Your task to perform on an android device: make emails show in primary in the gmail app Image 0: 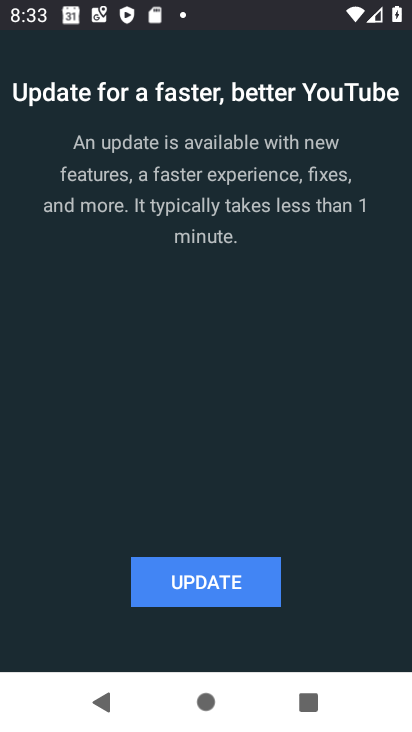
Step 0: press home button
Your task to perform on an android device: make emails show in primary in the gmail app Image 1: 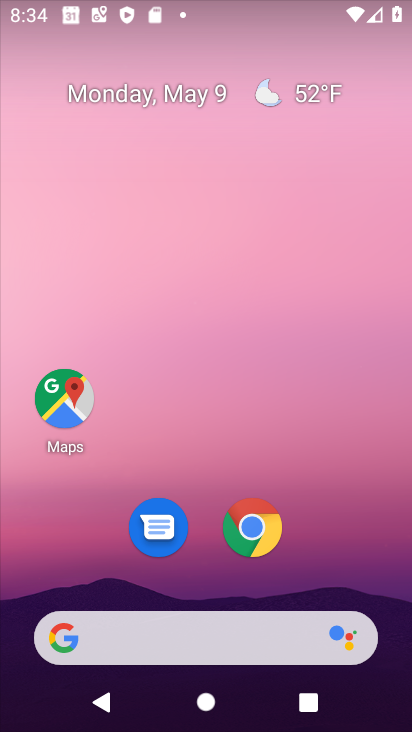
Step 1: drag from (208, 561) to (211, 93)
Your task to perform on an android device: make emails show in primary in the gmail app Image 2: 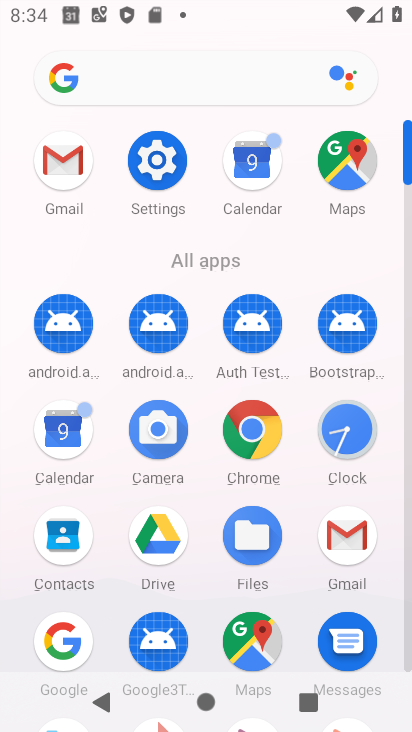
Step 2: click (64, 163)
Your task to perform on an android device: make emails show in primary in the gmail app Image 3: 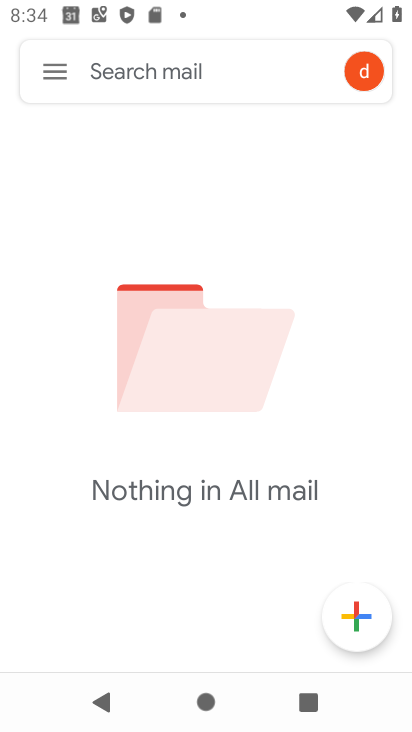
Step 3: click (62, 72)
Your task to perform on an android device: make emails show in primary in the gmail app Image 4: 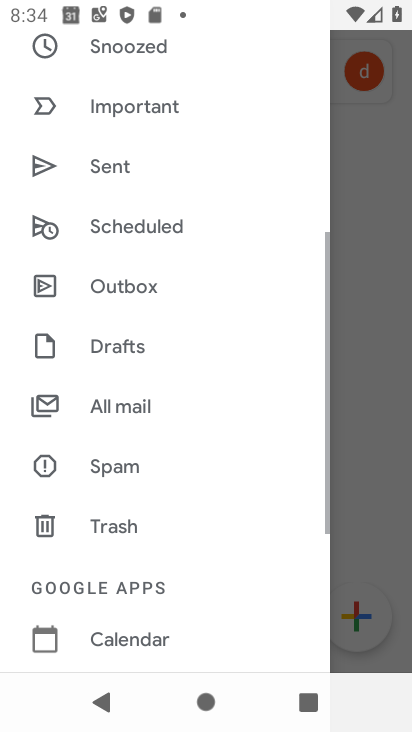
Step 4: drag from (174, 548) to (265, 126)
Your task to perform on an android device: make emails show in primary in the gmail app Image 5: 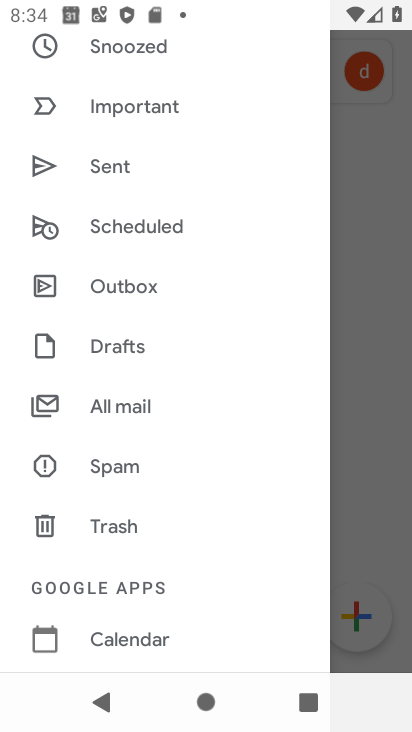
Step 5: drag from (168, 554) to (174, 205)
Your task to perform on an android device: make emails show in primary in the gmail app Image 6: 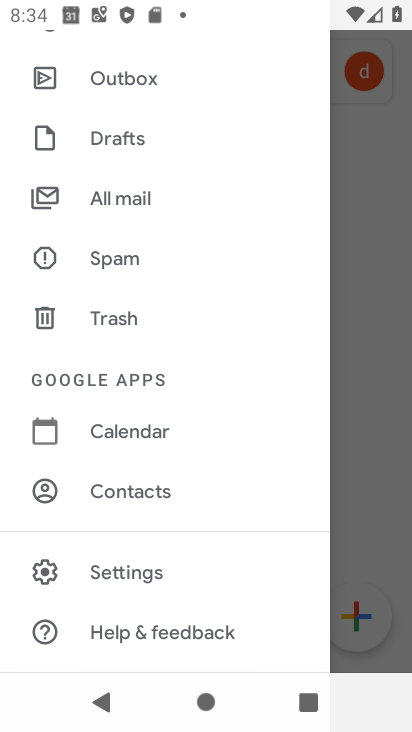
Step 6: click (120, 576)
Your task to perform on an android device: make emails show in primary in the gmail app Image 7: 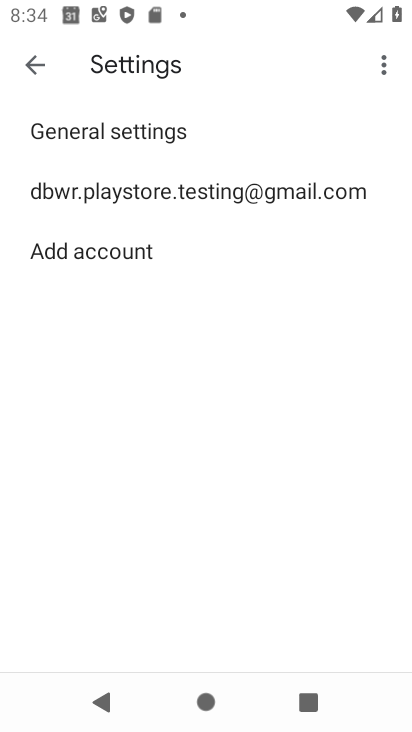
Step 7: click (115, 193)
Your task to perform on an android device: make emails show in primary in the gmail app Image 8: 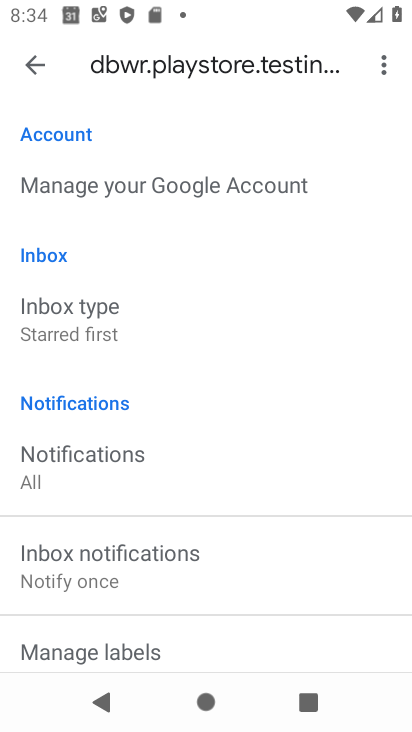
Step 8: click (91, 326)
Your task to perform on an android device: make emails show in primary in the gmail app Image 9: 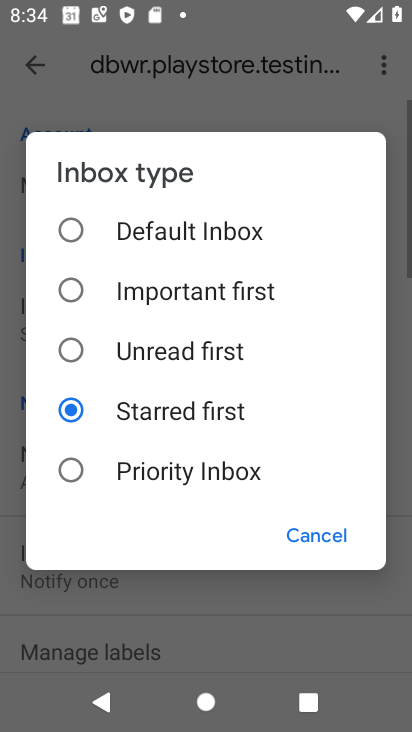
Step 9: click (67, 230)
Your task to perform on an android device: make emails show in primary in the gmail app Image 10: 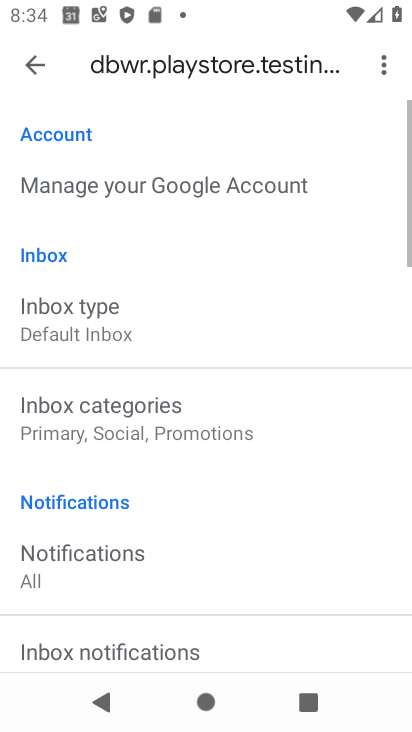
Step 10: click (143, 431)
Your task to perform on an android device: make emails show in primary in the gmail app Image 11: 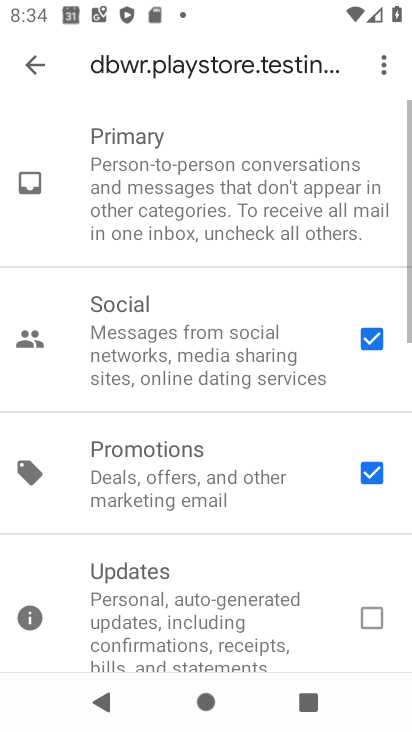
Step 11: click (374, 342)
Your task to perform on an android device: make emails show in primary in the gmail app Image 12: 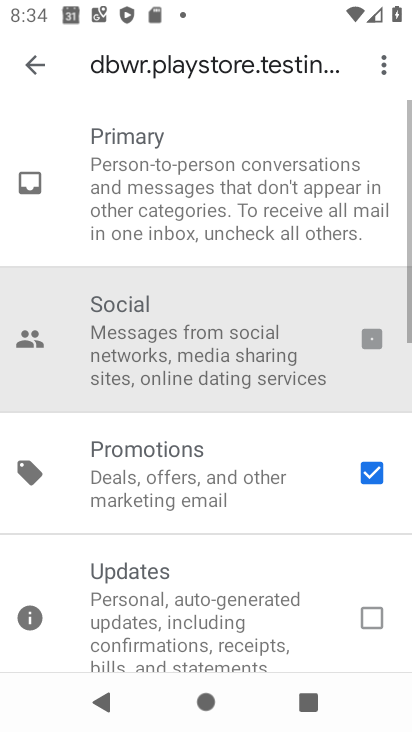
Step 12: click (378, 476)
Your task to perform on an android device: make emails show in primary in the gmail app Image 13: 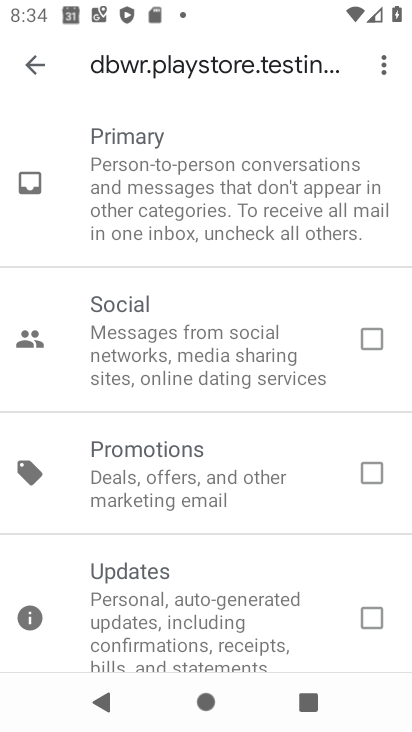
Step 13: task complete